Your task to perform on an android device: Open the web browser Image 0: 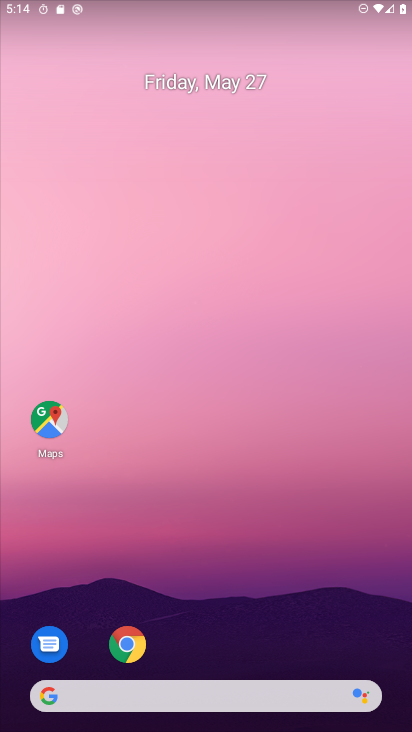
Step 0: click (139, 699)
Your task to perform on an android device: Open the web browser Image 1: 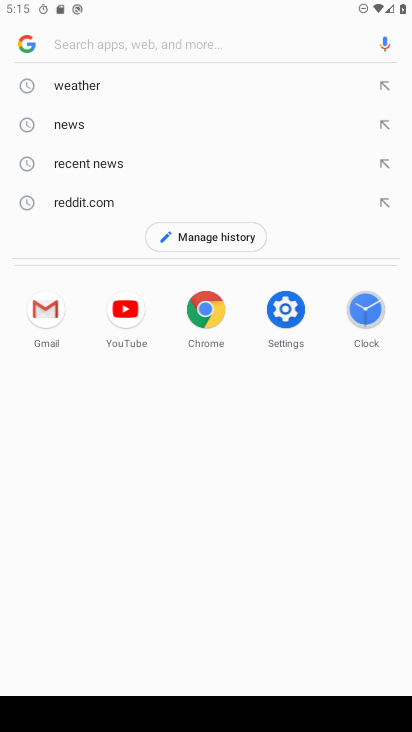
Step 1: task complete